Your task to perform on an android device: check storage Image 0: 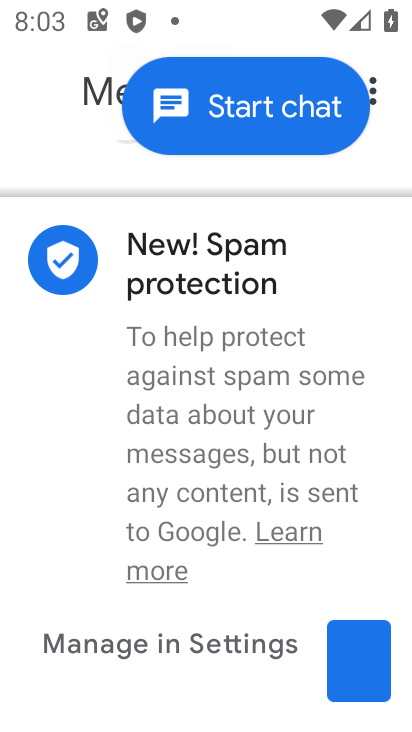
Step 0: press home button
Your task to perform on an android device: check storage Image 1: 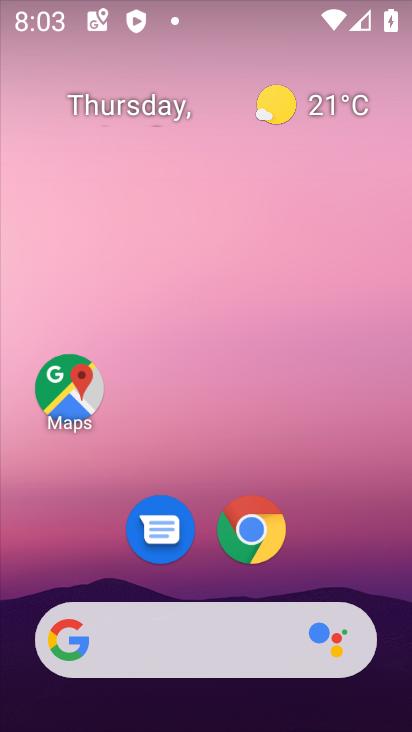
Step 1: drag from (265, 698) to (216, 66)
Your task to perform on an android device: check storage Image 2: 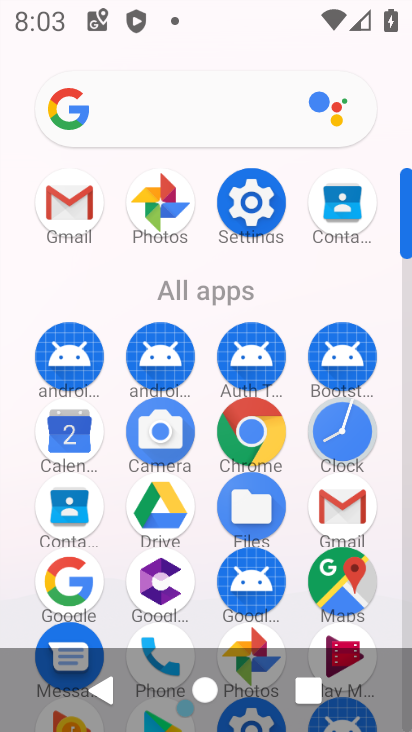
Step 2: click (245, 205)
Your task to perform on an android device: check storage Image 3: 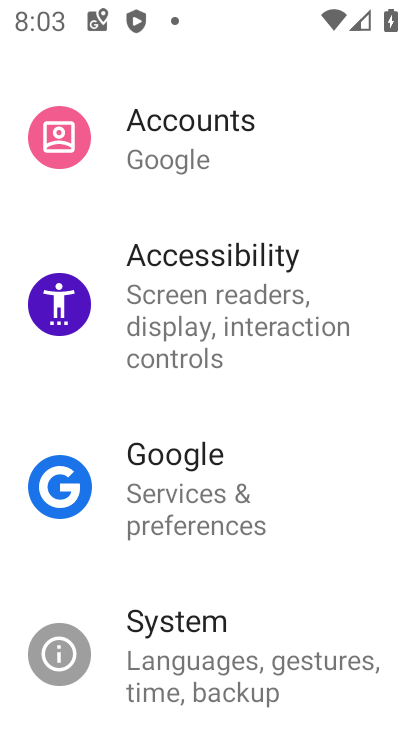
Step 3: drag from (306, 170) to (313, 540)
Your task to perform on an android device: check storage Image 4: 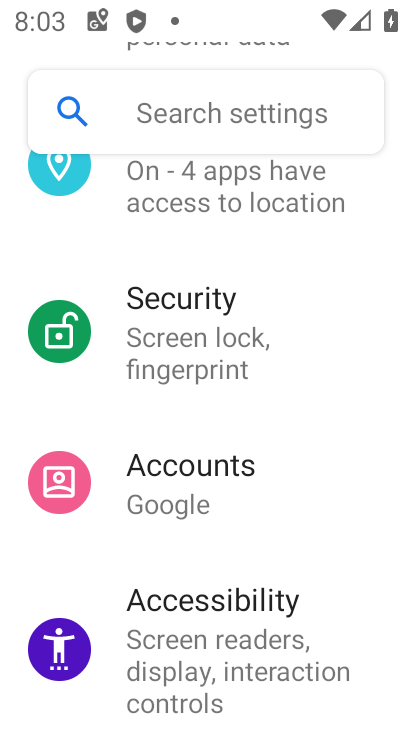
Step 4: drag from (381, 164) to (399, 568)
Your task to perform on an android device: check storage Image 5: 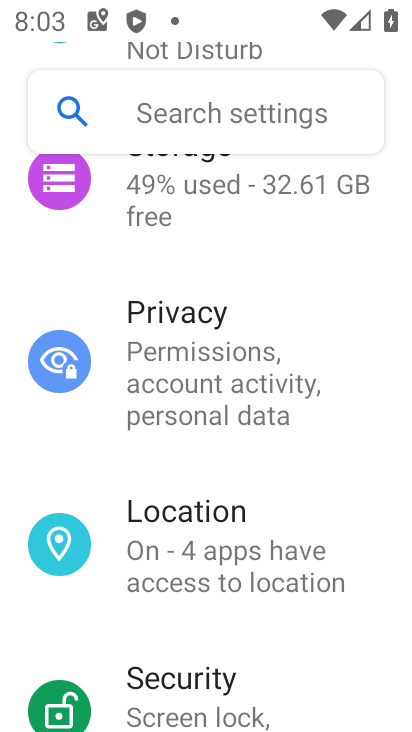
Step 5: drag from (374, 201) to (411, 629)
Your task to perform on an android device: check storage Image 6: 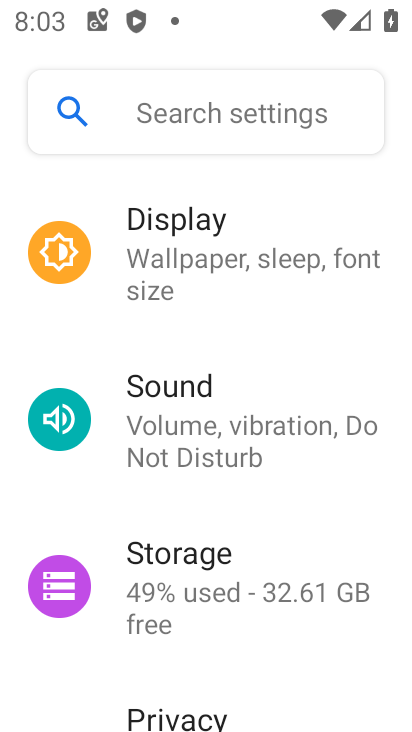
Step 6: click (241, 574)
Your task to perform on an android device: check storage Image 7: 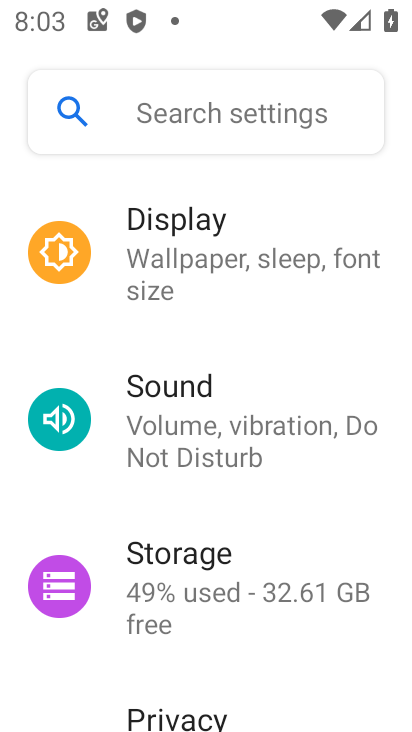
Step 7: click (241, 574)
Your task to perform on an android device: check storage Image 8: 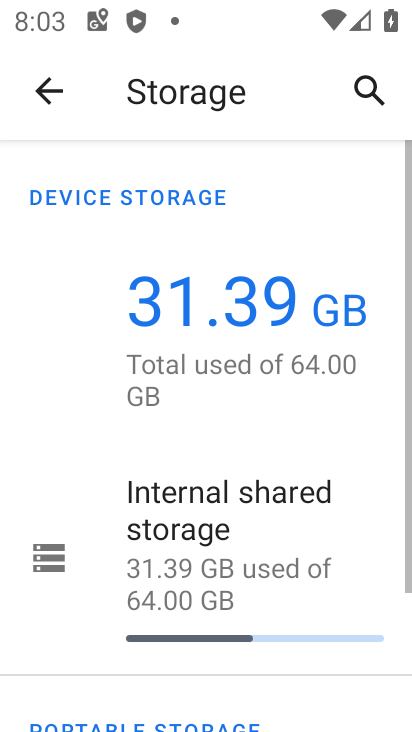
Step 8: task complete